Your task to perform on an android device: open chrome privacy settings Image 0: 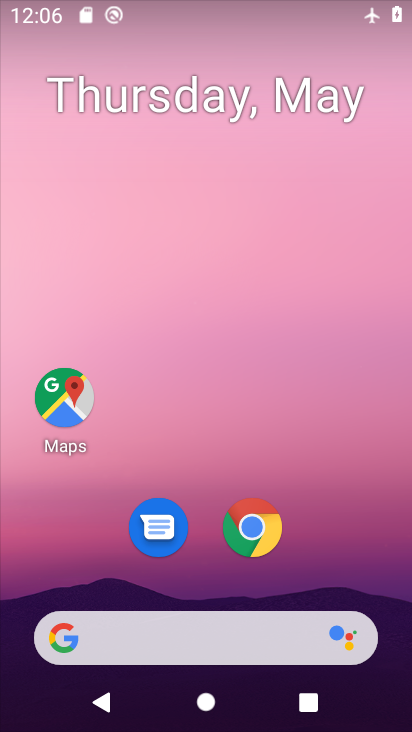
Step 0: click (262, 533)
Your task to perform on an android device: open chrome privacy settings Image 1: 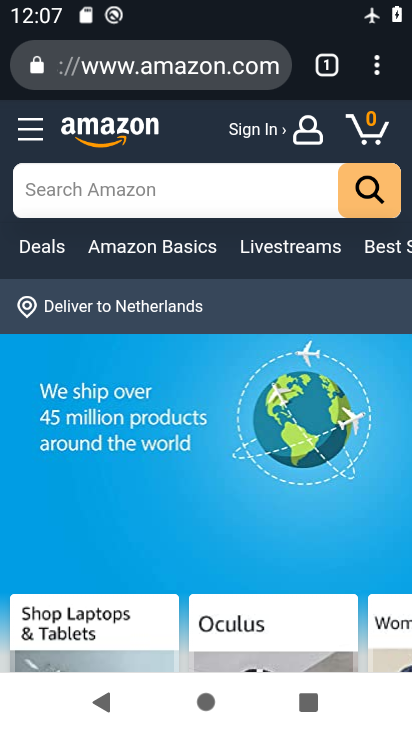
Step 1: drag from (373, 61) to (180, 578)
Your task to perform on an android device: open chrome privacy settings Image 2: 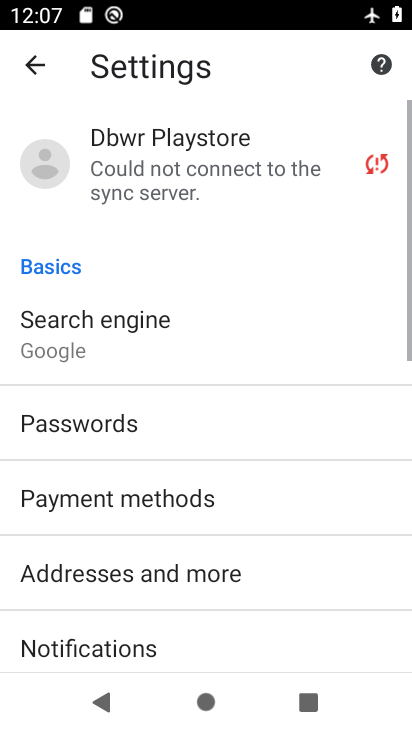
Step 2: drag from (170, 578) to (330, 118)
Your task to perform on an android device: open chrome privacy settings Image 3: 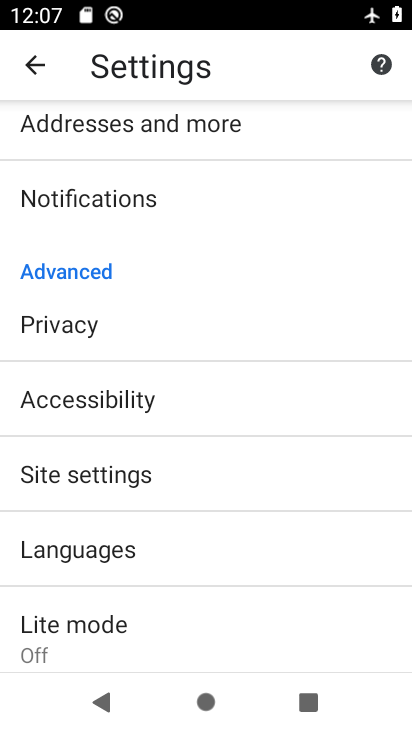
Step 3: click (94, 322)
Your task to perform on an android device: open chrome privacy settings Image 4: 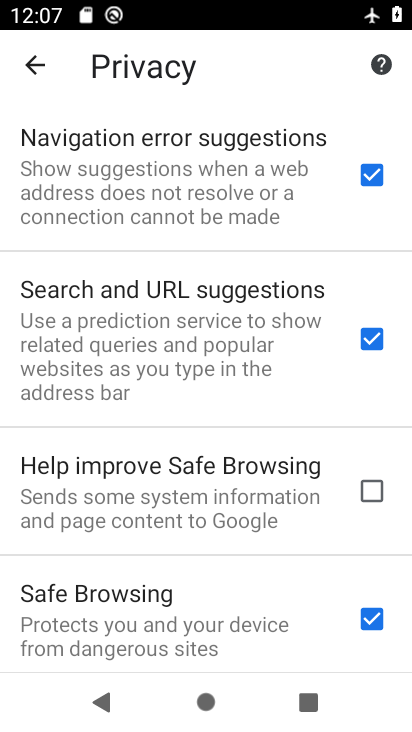
Step 4: task complete